Your task to perform on an android device: Open Android settings Image 0: 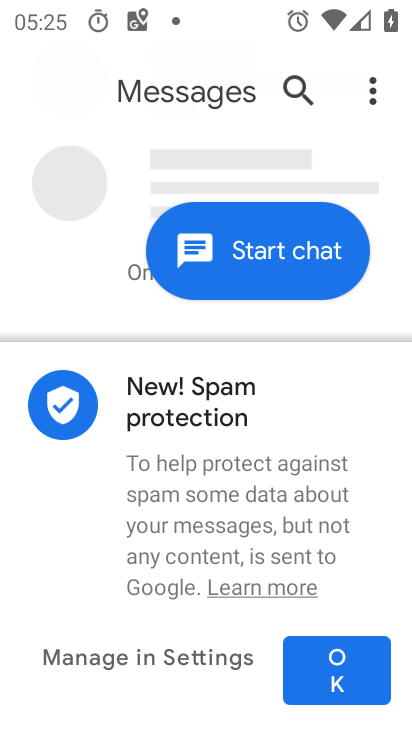
Step 0: press home button
Your task to perform on an android device: Open Android settings Image 1: 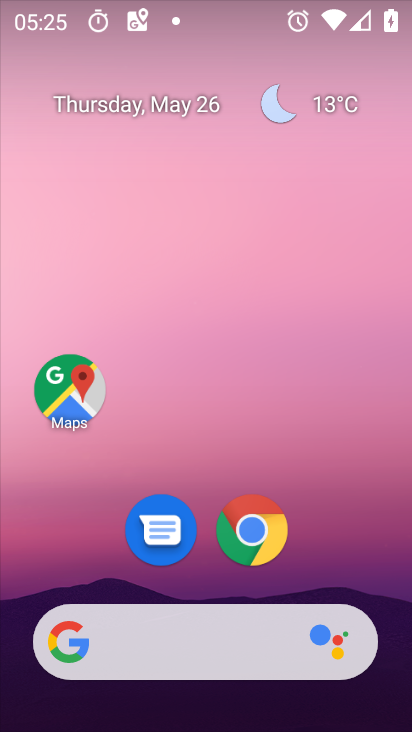
Step 1: drag from (269, 613) to (249, 32)
Your task to perform on an android device: Open Android settings Image 2: 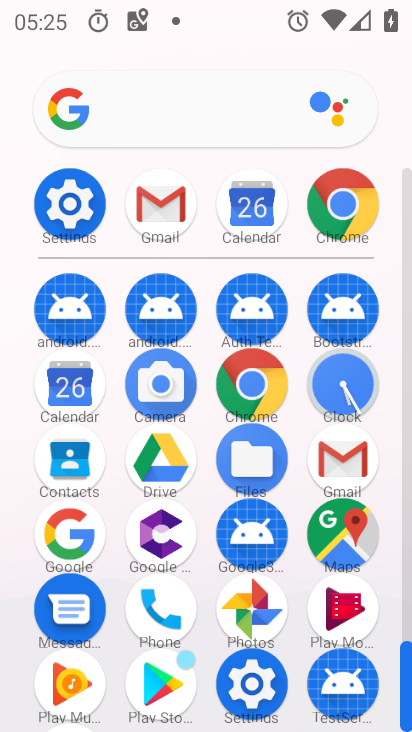
Step 2: click (74, 197)
Your task to perform on an android device: Open Android settings Image 3: 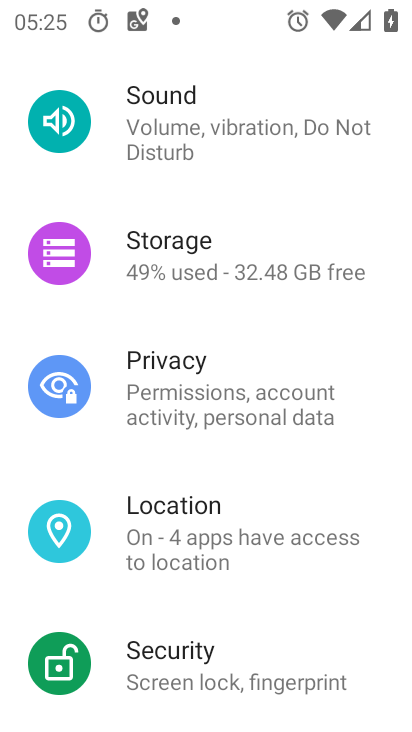
Step 3: drag from (169, 716) to (327, 7)
Your task to perform on an android device: Open Android settings Image 4: 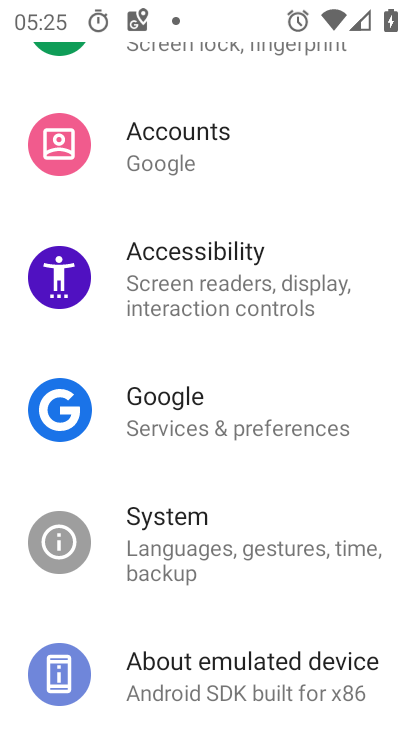
Step 4: click (227, 664)
Your task to perform on an android device: Open Android settings Image 5: 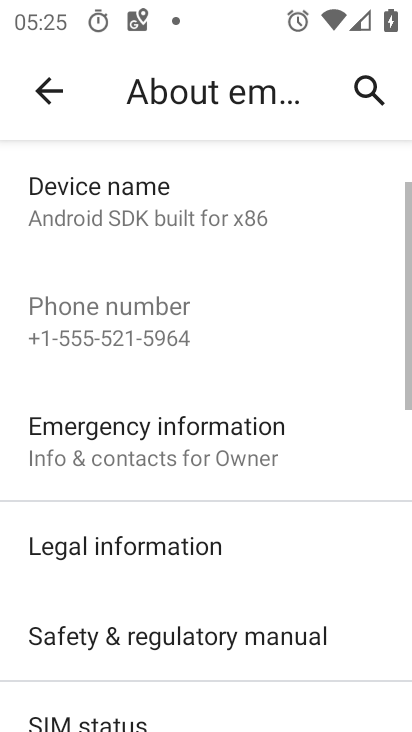
Step 5: drag from (227, 664) to (211, 3)
Your task to perform on an android device: Open Android settings Image 6: 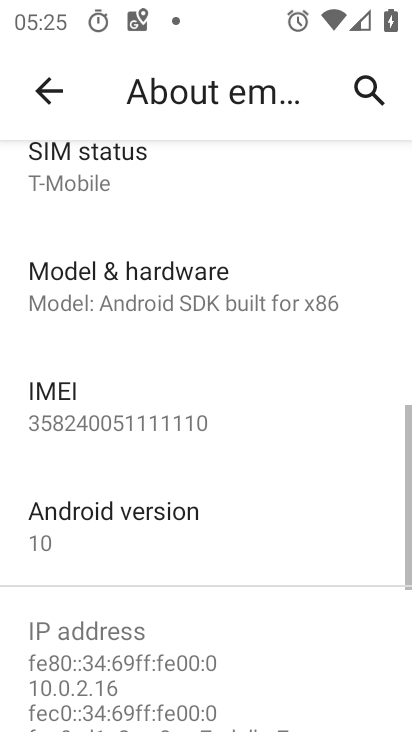
Step 6: click (202, 517)
Your task to perform on an android device: Open Android settings Image 7: 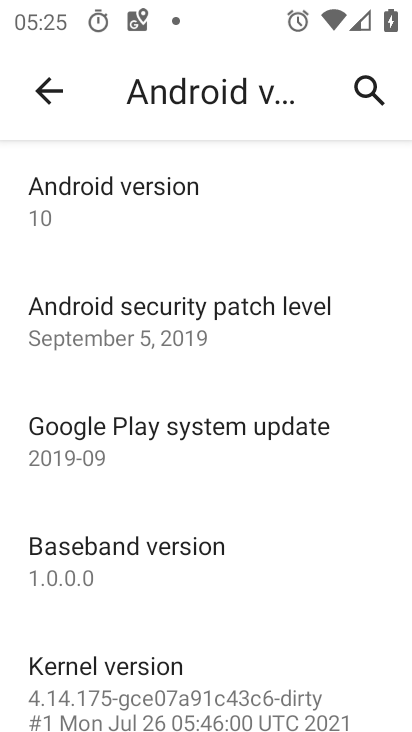
Step 7: task complete